Your task to perform on an android device: View the shopping cart on bestbuy.com. Image 0: 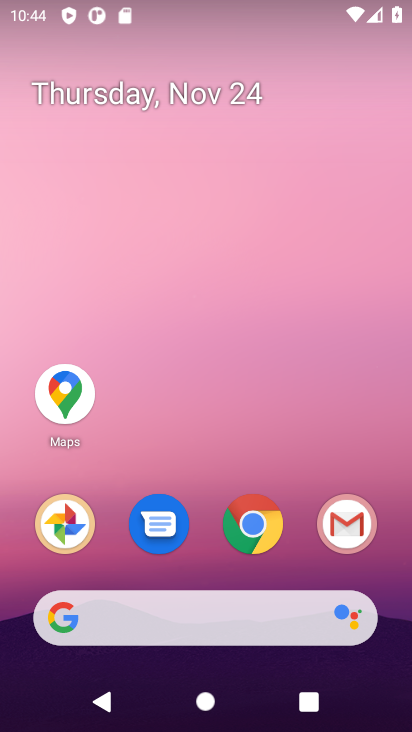
Step 0: click (254, 526)
Your task to perform on an android device: View the shopping cart on bestbuy.com. Image 1: 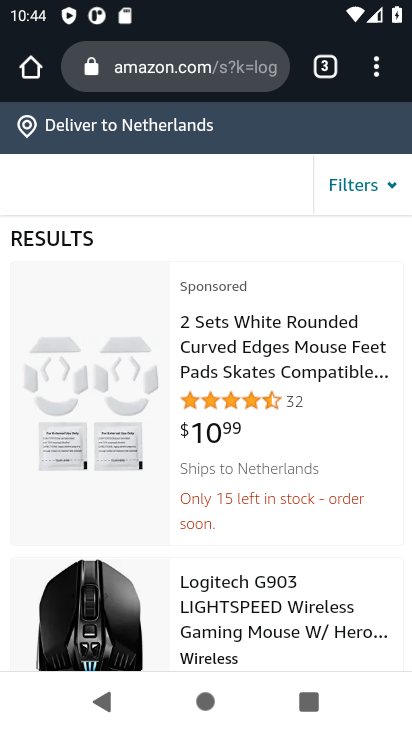
Step 1: click (148, 67)
Your task to perform on an android device: View the shopping cart on bestbuy.com. Image 2: 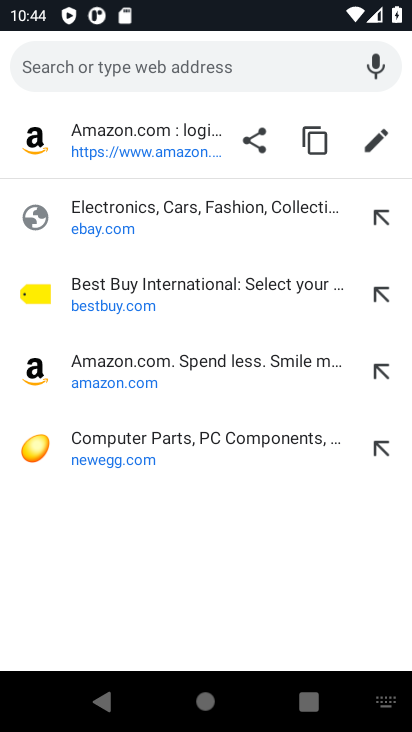
Step 2: click (86, 311)
Your task to perform on an android device: View the shopping cart on bestbuy.com. Image 3: 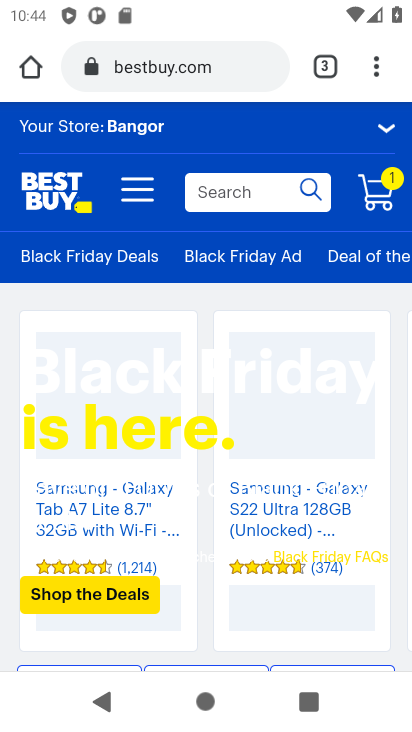
Step 3: click (381, 198)
Your task to perform on an android device: View the shopping cart on bestbuy.com. Image 4: 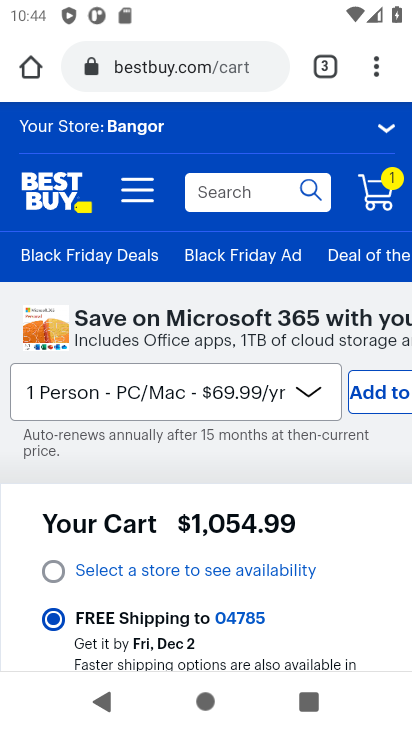
Step 4: click (380, 196)
Your task to perform on an android device: View the shopping cart on bestbuy.com. Image 5: 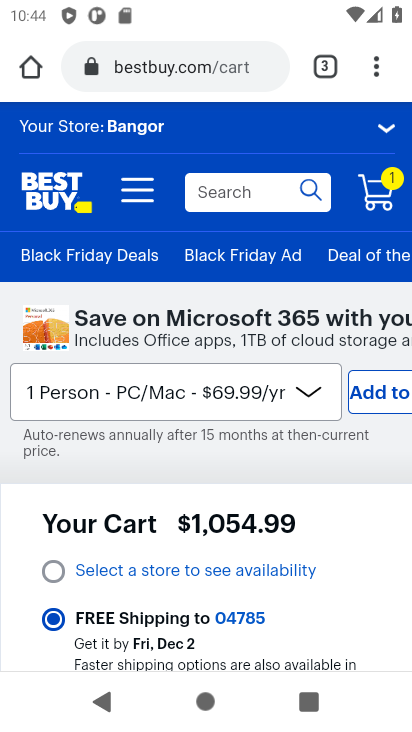
Step 5: task complete